Your task to perform on an android device: Search for good Chinese restaurants Image 0: 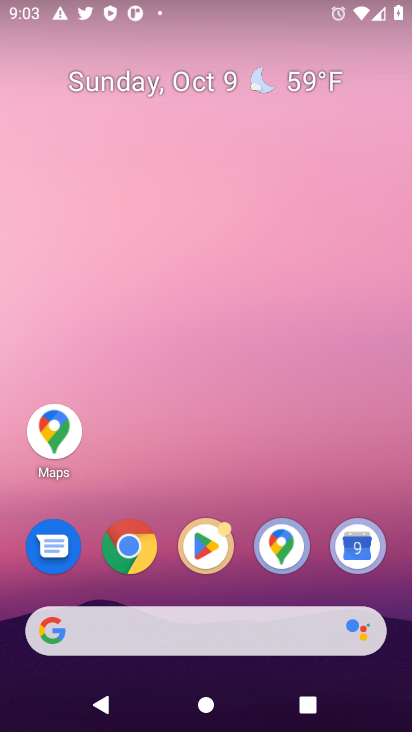
Step 0: click (124, 551)
Your task to perform on an android device: Search for good Chinese restaurants Image 1: 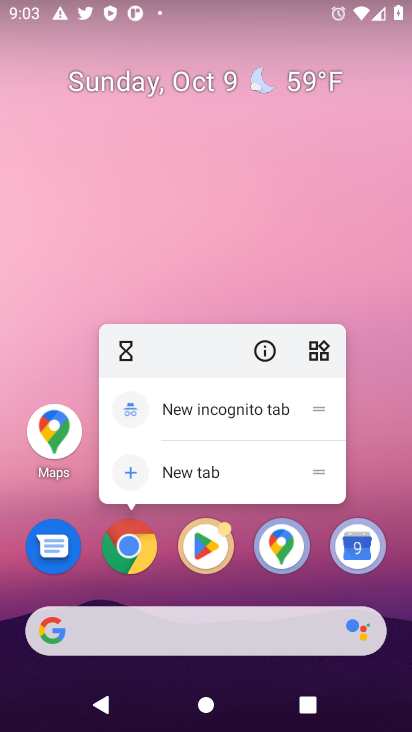
Step 1: click (119, 555)
Your task to perform on an android device: Search for good Chinese restaurants Image 2: 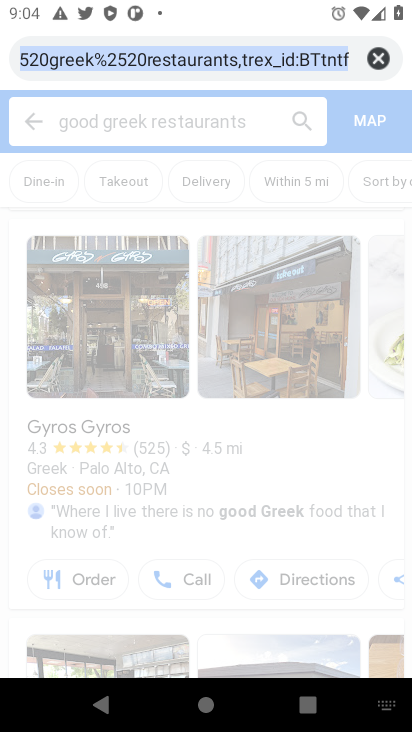
Step 2: type "good chinese restaurants"
Your task to perform on an android device: Search for good Chinese restaurants Image 3: 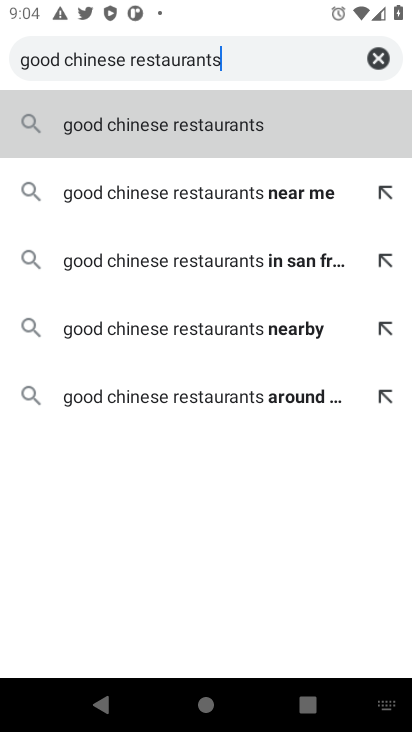
Step 3: press enter
Your task to perform on an android device: Search for good Chinese restaurants Image 4: 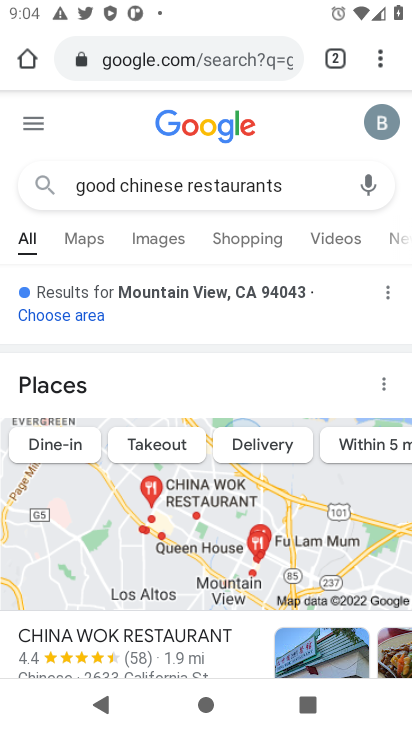
Step 4: task complete